Your task to perform on an android device: Clear all items from cart on bestbuy. Image 0: 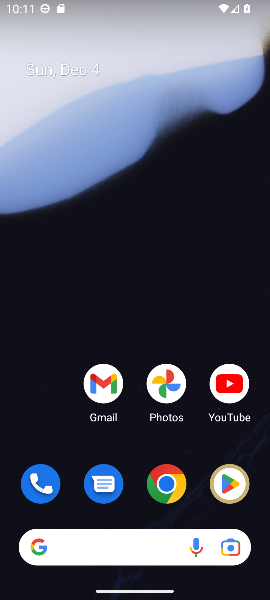
Step 0: click (169, 490)
Your task to perform on an android device: Clear all items from cart on bestbuy. Image 1: 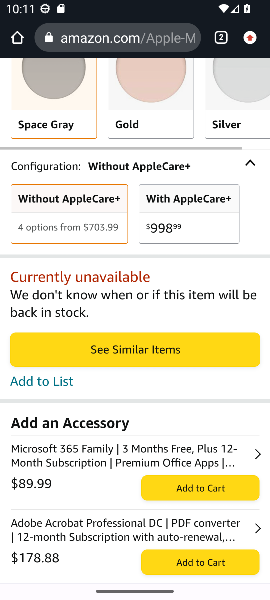
Step 1: click (92, 41)
Your task to perform on an android device: Clear all items from cart on bestbuy. Image 2: 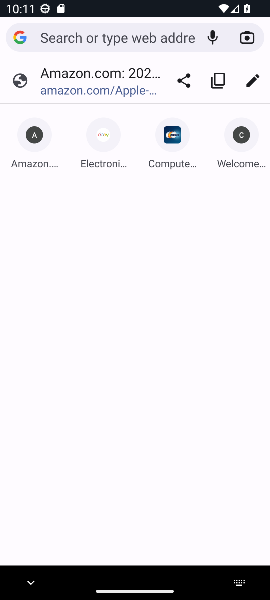
Step 2: type "bestbuy.com"
Your task to perform on an android device: Clear all items from cart on bestbuy. Image 3: 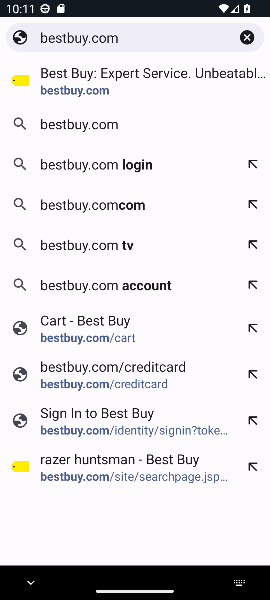
Step 3: click (74, 92)
Your task to perform on an android device: Clear all items from cart on bestbuy. Image 4: 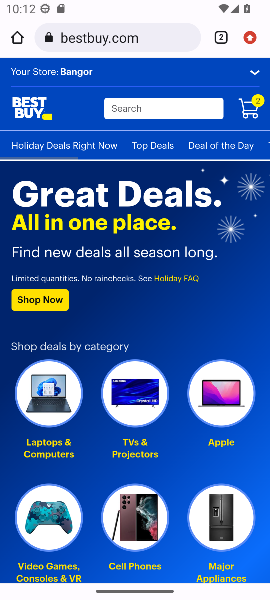
Step 4: click (247, 108)
Your task to perform on an android device: Clear all items from cart on bestbuy. Image 5: 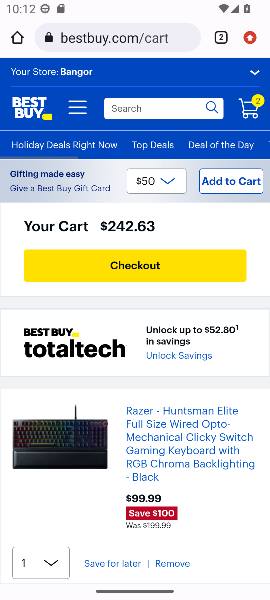
Step 5: click (167, 560)
Your task to perform on an android device: Clear all items from cart on bestbuy. Image 6: 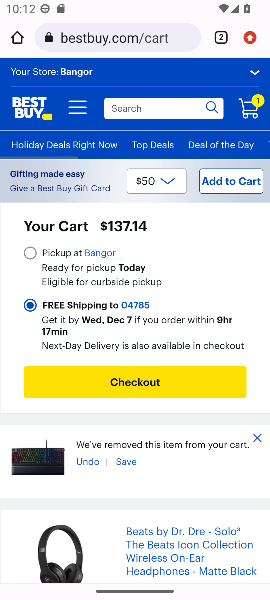
Step 6: drag from (171, 516) to (166, 366)
Your task to perform on an android device: Clear all items from cart on bestbuy. Image 7: 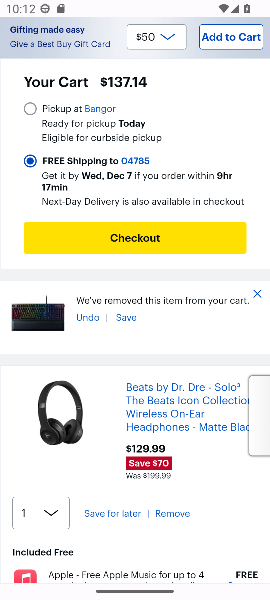
Step 7: click (162, 513)
Your task to perform on an android device: Clear all items from cart on bestbuy. Image 8: 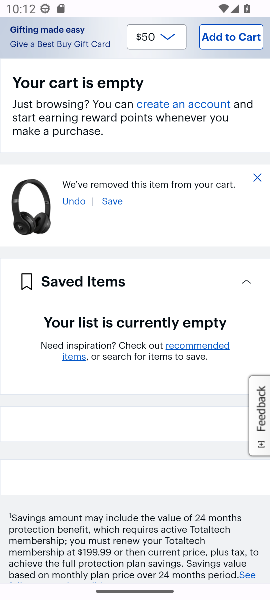
Step 8: task complete